Your task to perform on an android device: Open Youtube and go to "Your channel" Image 0: 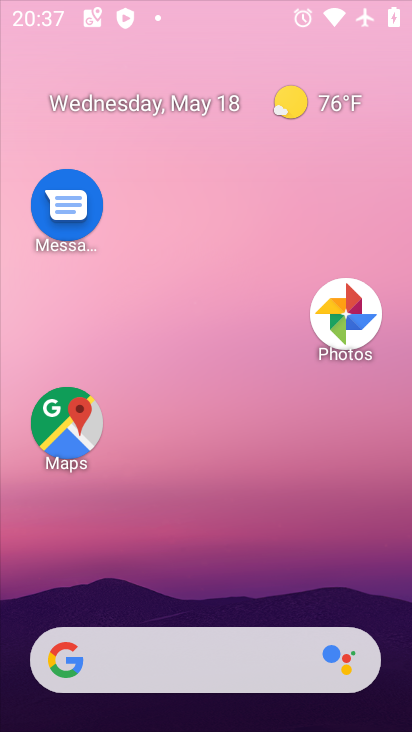
Step 0: drag from (220, 627) to (164, 12)
Your task to perform on an android device: Open Youtube and go to "Your channel" Image 1: 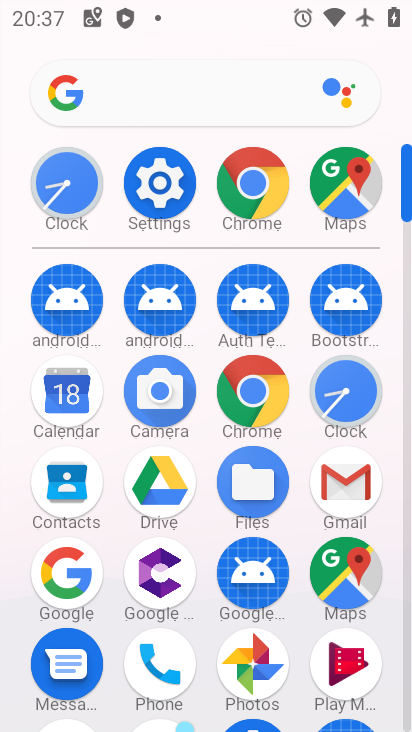
Step 1: drag from (210, 619) to (158, 50)
Your task to perform on an android device: Open Youtube and go to "Your channel" Image 2: 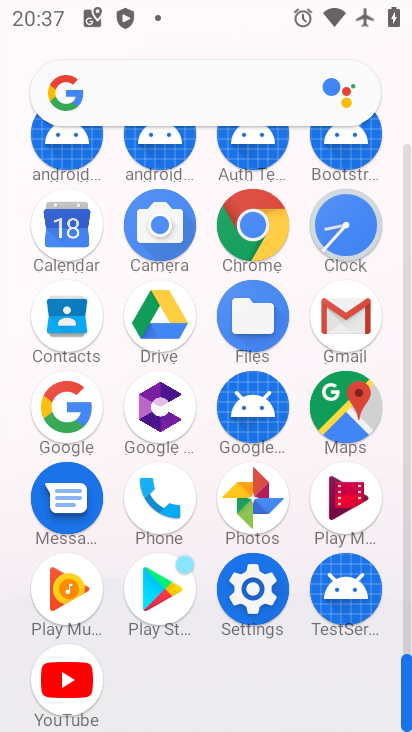
Step 2: click (69, 680)
Your task to perform on an android device: Open Youtube and go to "Your channel" Image 3: 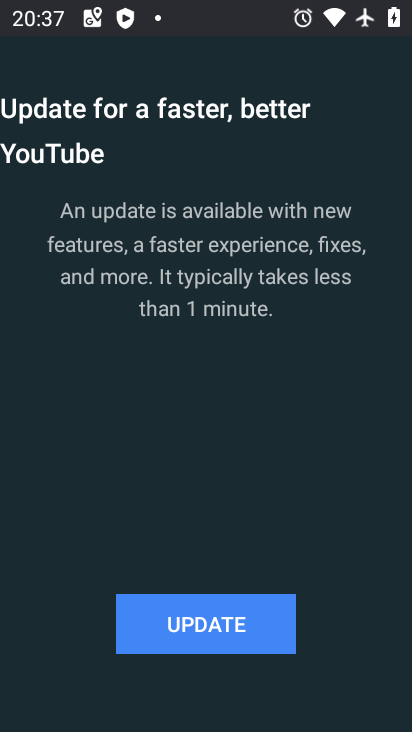
Step 3: click (202, 608)
Your task to perform on an android device: Open Youtube and go to "Your channel" Image 4: 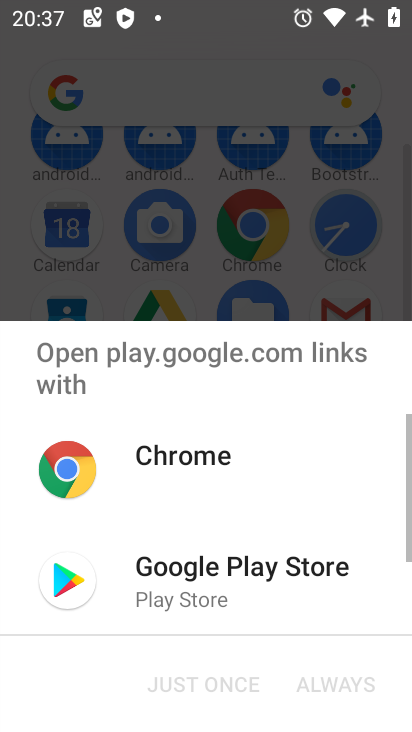
Step 4: click (175, 565)
Your task to perform on an android device: Open Youtube and go to "Your channel" Image 5: 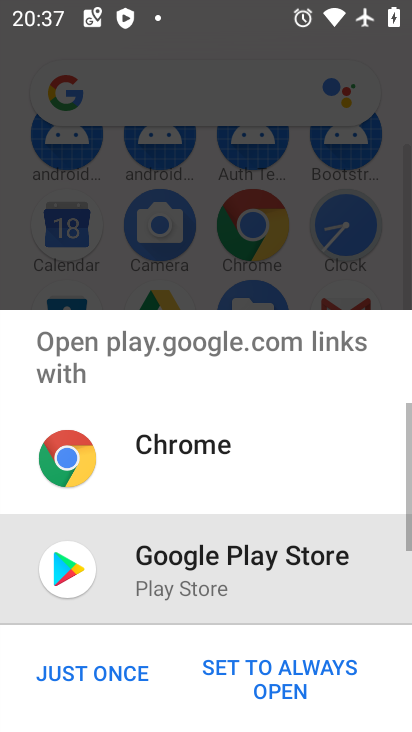
Step 5: click (150, 671)
Your task to perform on an android device: Open Youtube and go to "Your channel" Image 6: 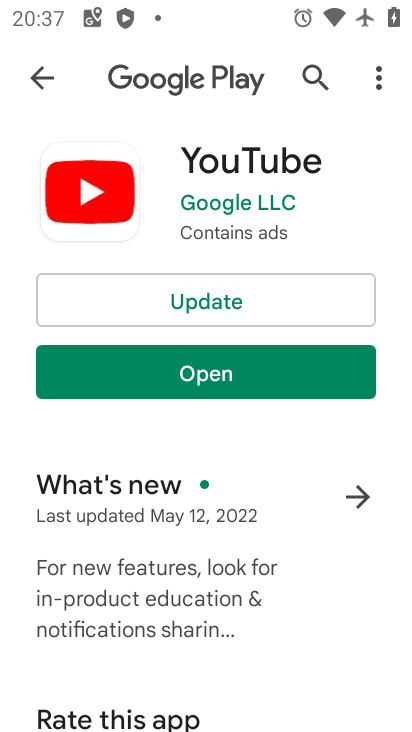
Step 6: click (206, 300)
Your task to perform on an android device: Open Youtube and go to "Your channel" Image 7: 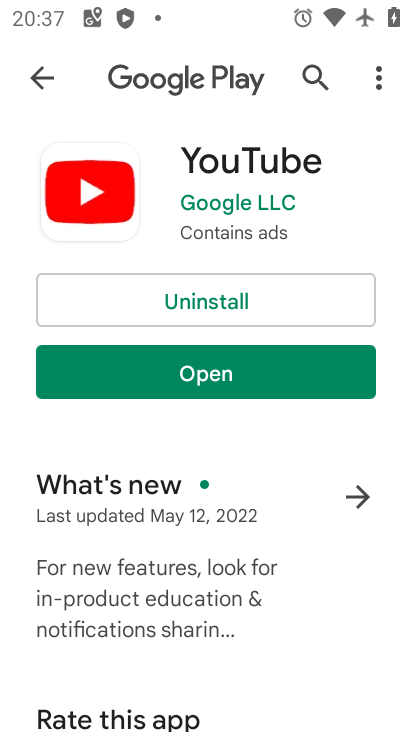
Step 7: click (188, 392)
Your task to perform on an android device: Open Youtube and go to "Your channel" Image 8: 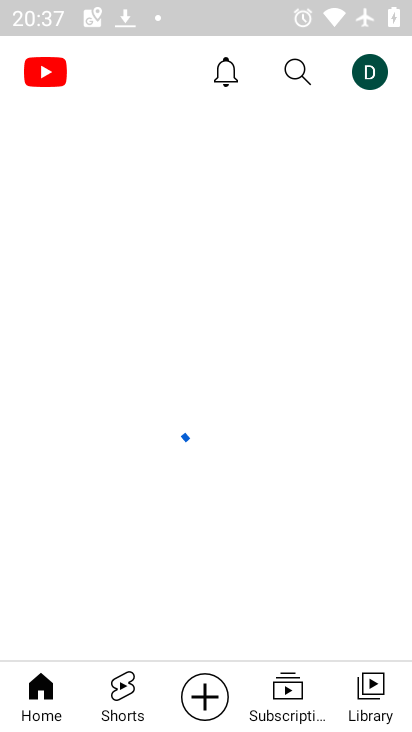
Step 8: click (361, 76)
Your task to perform on an android device: Open Youtube and go to "Your channel" Image 9: 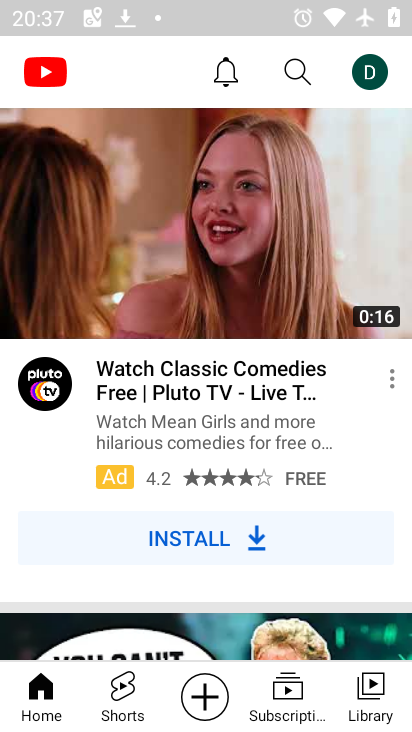
Step 9: click (374, 92)
Your task to perform on an android device: Open Youtube and go to "Your channel" Image 10: 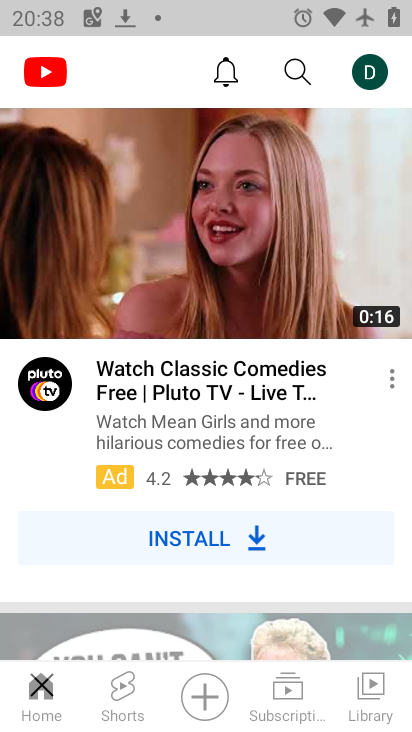
Step 10: click (372, 86)
Your task to perform on an android device: Open Youtube and go to "Your channel" Image 11: 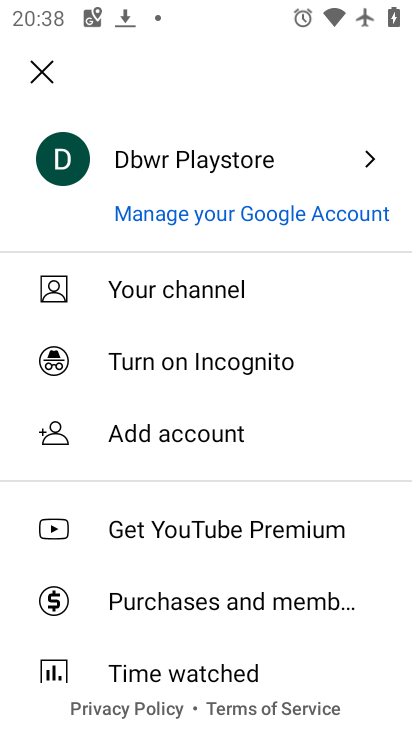
Step 11: click (294, 271)
Your task to perform on an android device: Open Youtube and go to "Your channel" Image 12: 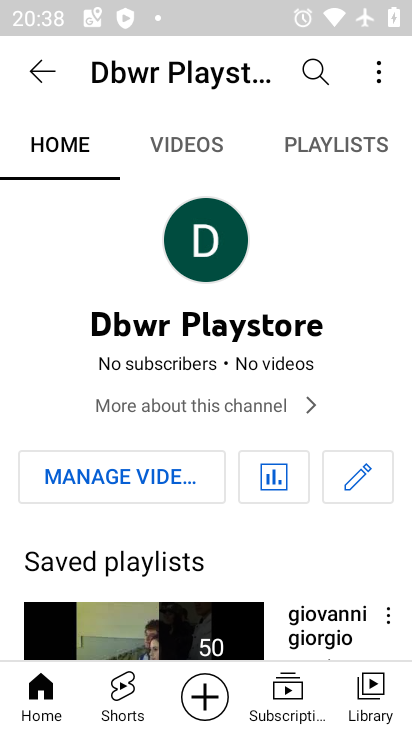
Step 12: task complete